Your task to perform on an android device: open sync settings in chrome Image 0: 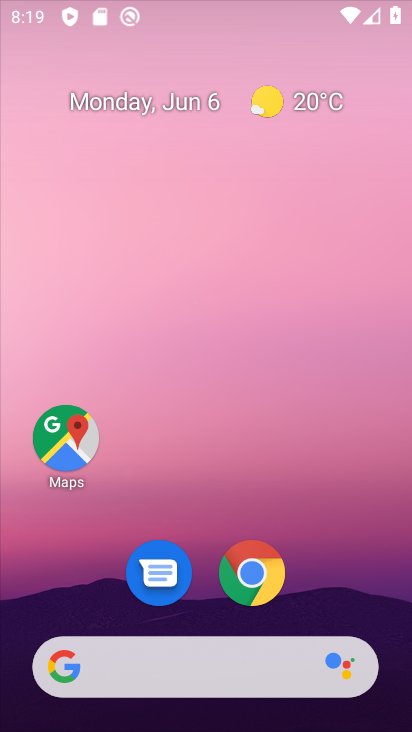
Step 0: drag from (201, 600) to (249, 146)
Your task to perform on an android device: open sync settings in chrome Image 1: 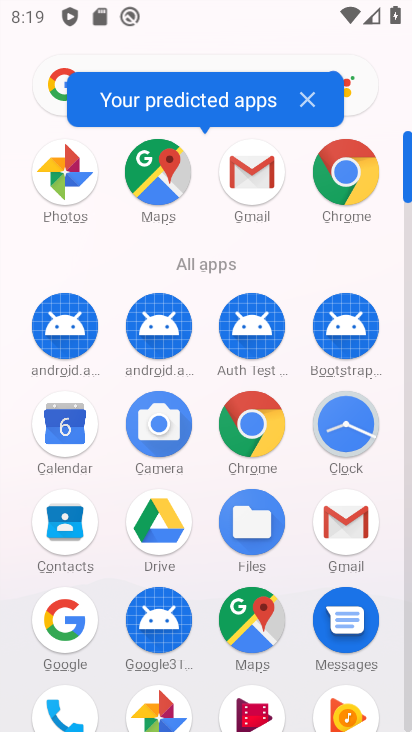
Step 1: click (346, 157)
Your task to perform on an android device: open sync settings in chrome Image 2: 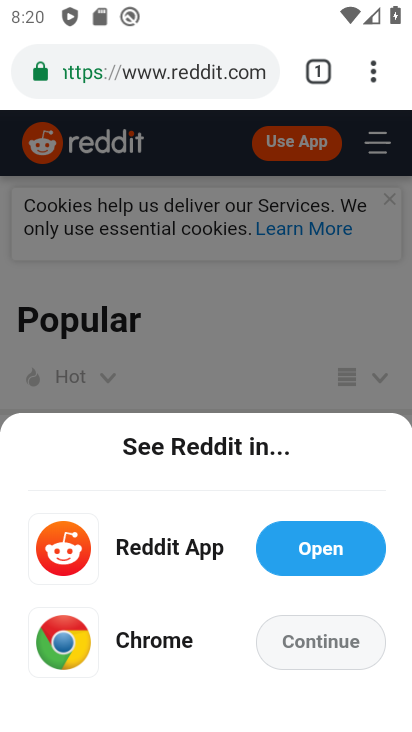
Step 2: drag from (370, 76) to (133, 559)
Your task to perform on an android device: open sync settings in chrome Image 3: 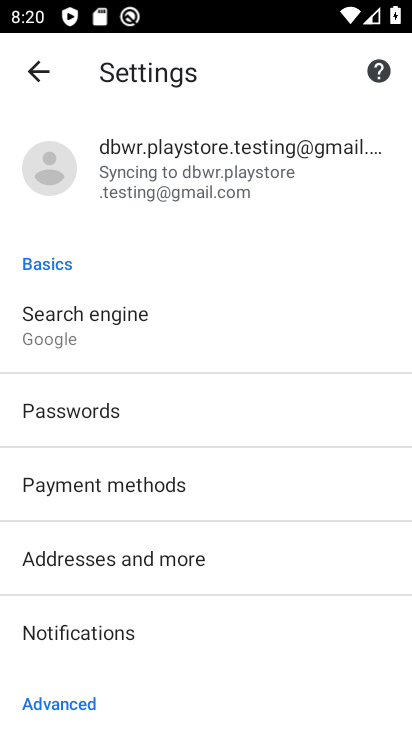
Step 3: click (157, 173)
Your task to perform on an android device: open sync settings in chrome Image 4: 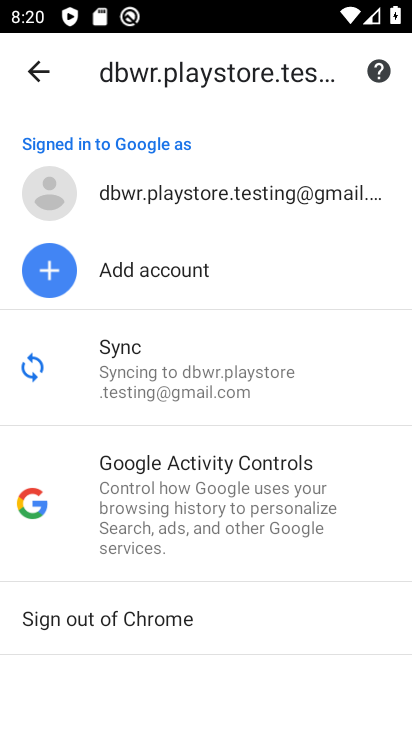
Step 4: task complete